Your task to perform on an android device: toggle notification dots Image 0: 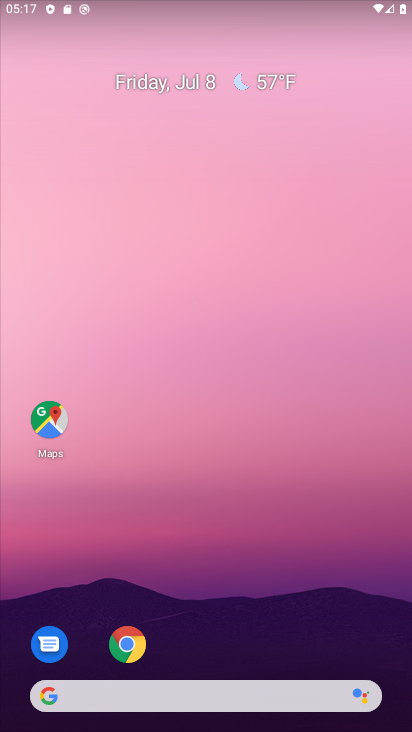
Step 0: drag from (242, 667) to (211, 85)
Your task to perform on an android device: toggle notification dots Image 1: 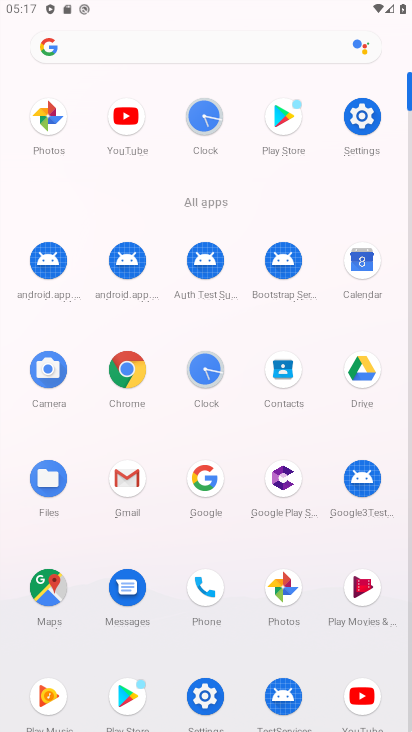
Step 1: click (204, 691)
Your task to perform on an android device: toggle notification dots Image 2: 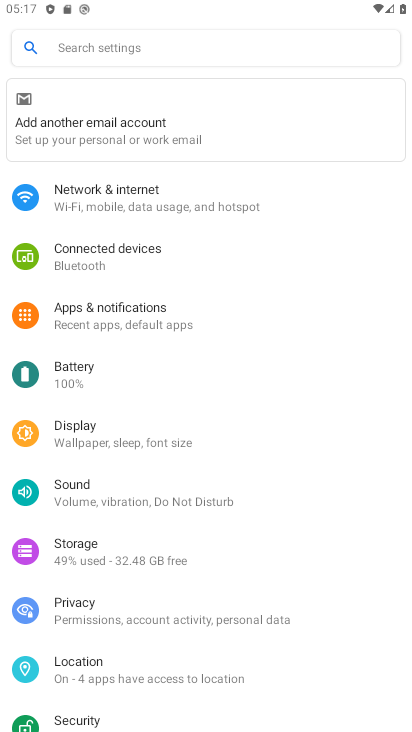
Step 2: click (120, 313)
Your task to perform on an android device: toggle notification dots Image 3: 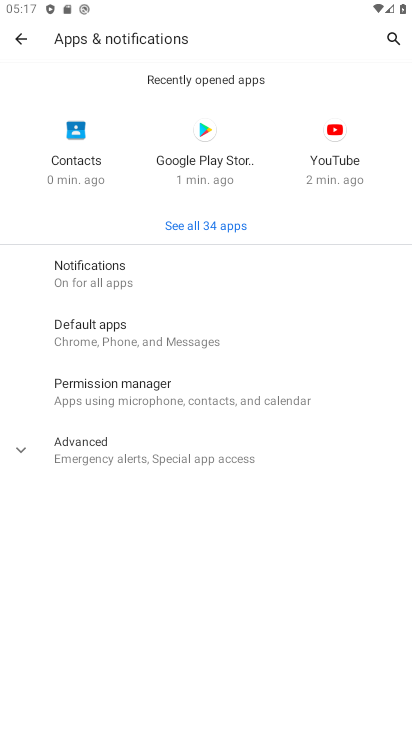
Step 3: click (92, 267)
Your task to perform on an android device: toggle notification dots Image 4: 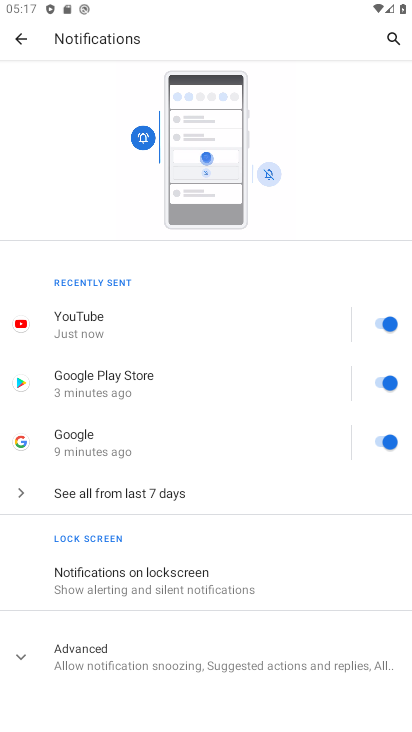
Step 4: click (125, 659)
Your task to perform on an android device: toggle notification dots Image 5: 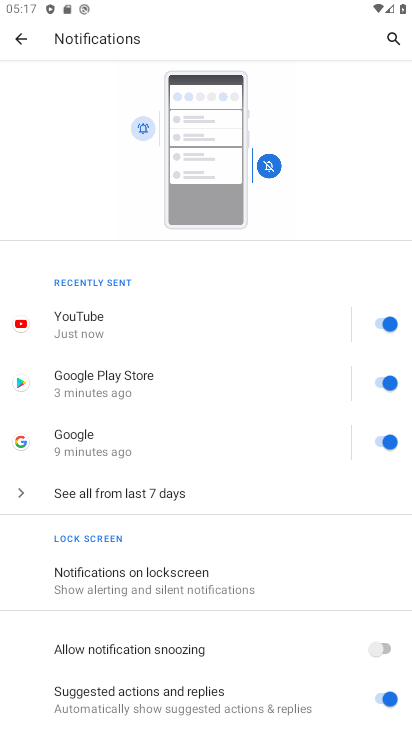
Step 5: drag from (194, 679) to (264, 533)
Your task to perform on an android device: toggle notification dots Image 6: 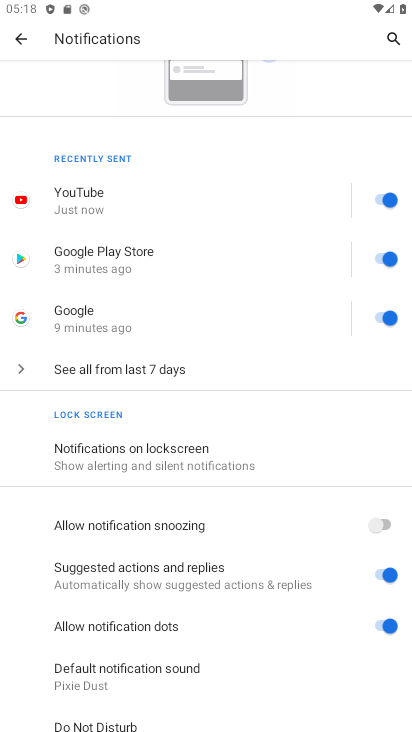
Step 6: click (381, 629)
Your task to perform on an android device: toggle notification dots Image 7: 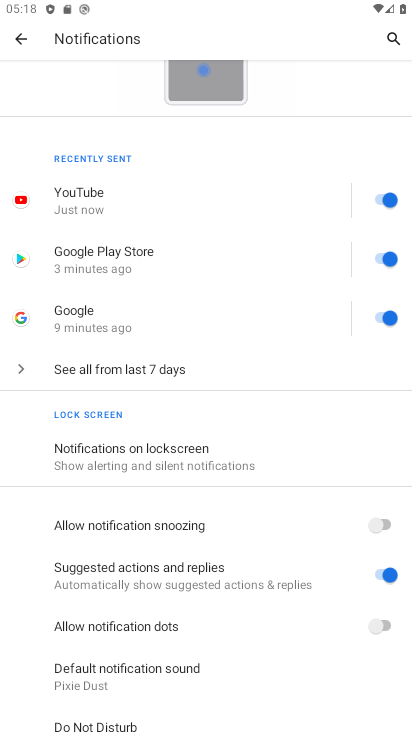
Step 7: task complete